Your task to perform on an android device: change the clock display to digital Image 0: 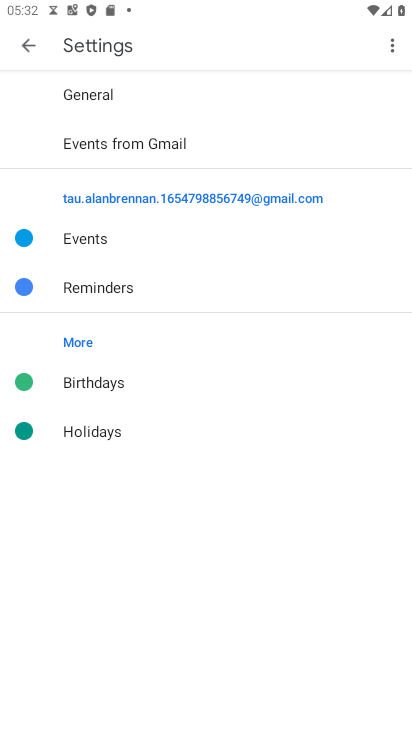
Step 0: press home button
Your task to perform on an android device: change the clock display to digital Image 1: 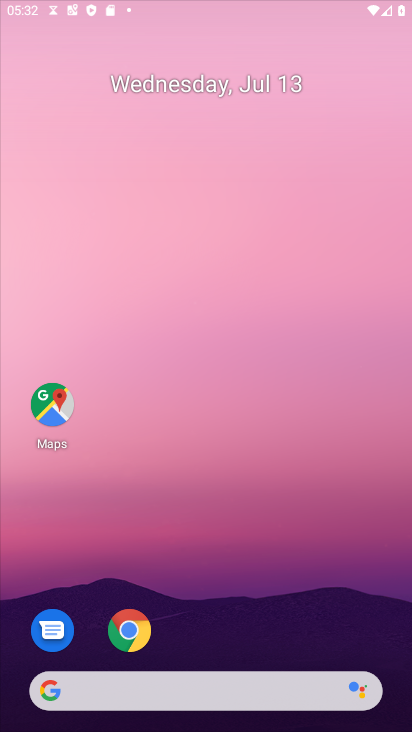
Step 1: drag from (248, 672) to (332, 85)
Your task to perform on an android device: change the clock display to digital Image 2: 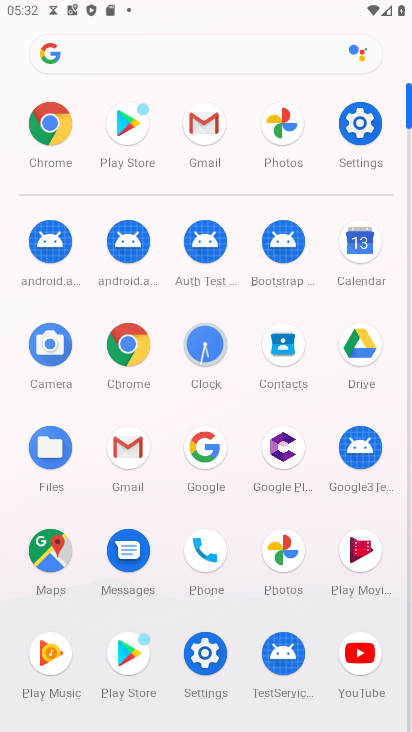
Step 2: click (195, 343)
Your task to perform on an android device: change the clock display to digital Image 3: 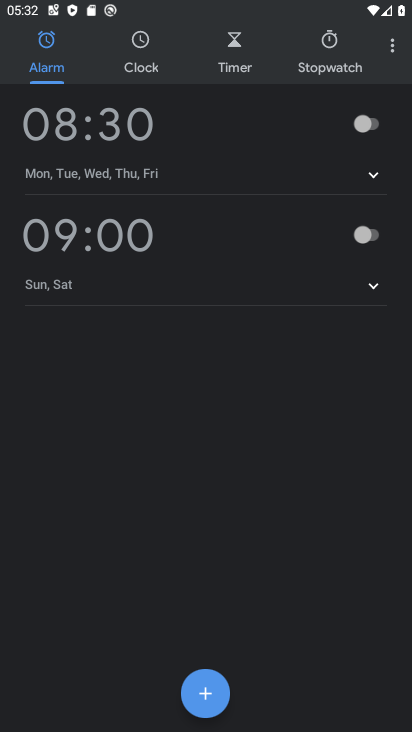
Step 3: click (383, 43)
Your task to perform on an android device: change the clock display to digital Image 4: 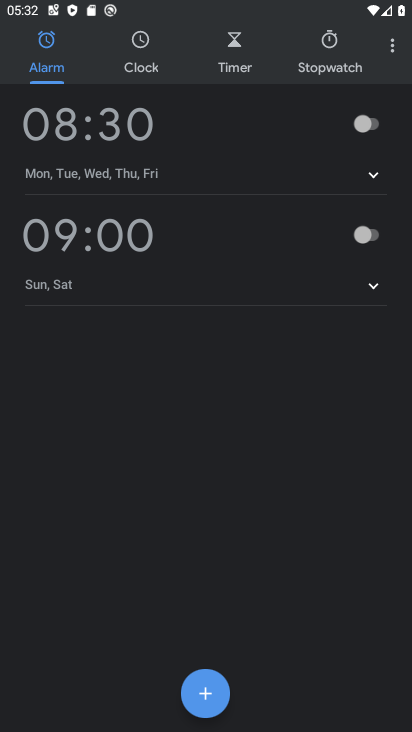
Step 4: click (391, 37)
Your task to perform on an android device: change the clock display to digital Image 5: 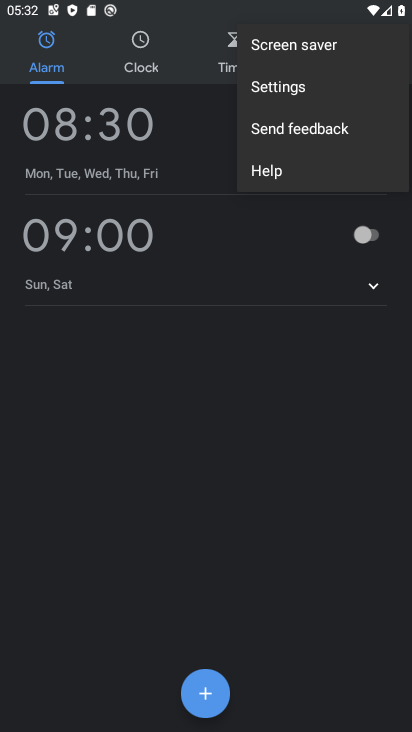
Step 5: click (322, 99)
Your task to perform on an android device: change the clock display to digital Image 6: 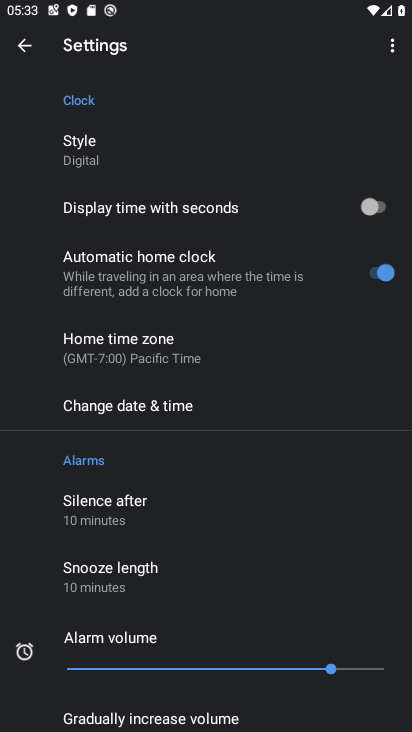
Step 6: task complete